Your task to perform on an android device: add a contact Image 0: 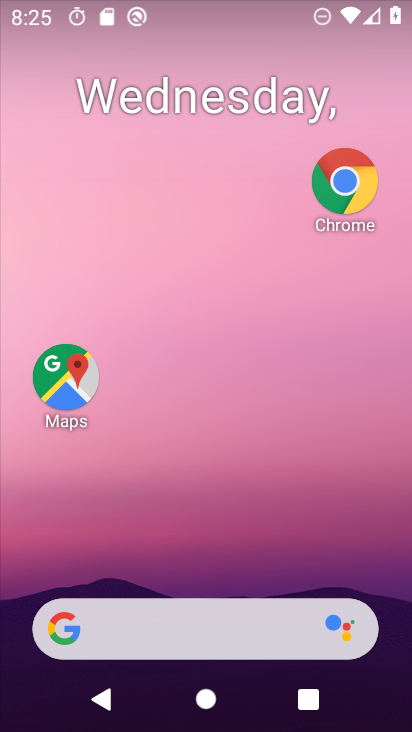
Step 0: drag from (274, 668) to (238, 177)
Your task to perform on an android device: add a contact Image 1: 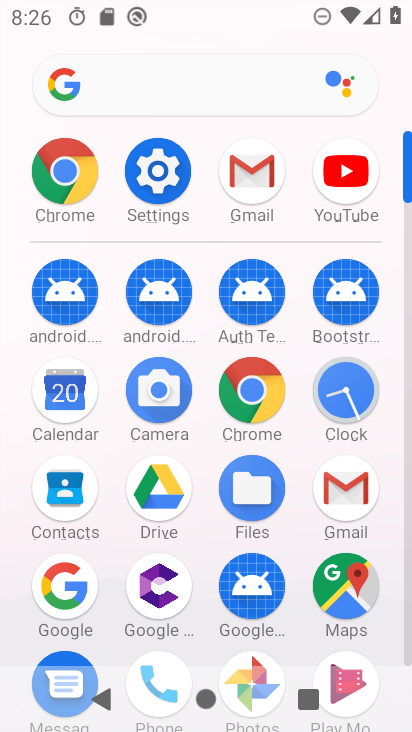
Step 1: drag from (117, 540) to (105, 418)
Your task to perform on an android device: add a contact Image 2: 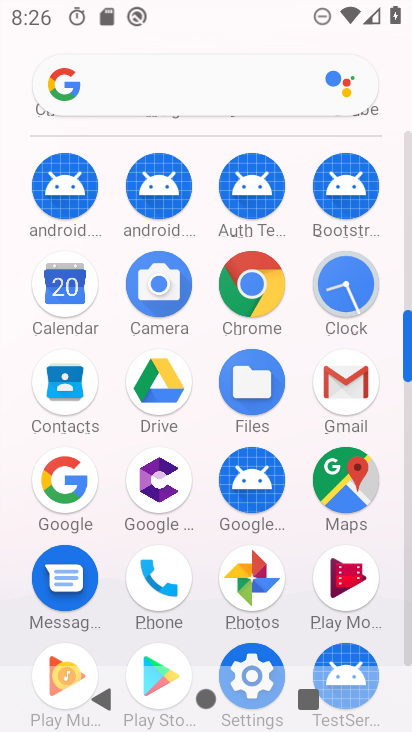
Step 2: click (162, 566)
Your task to perform on an android device: add a contact Image 3: 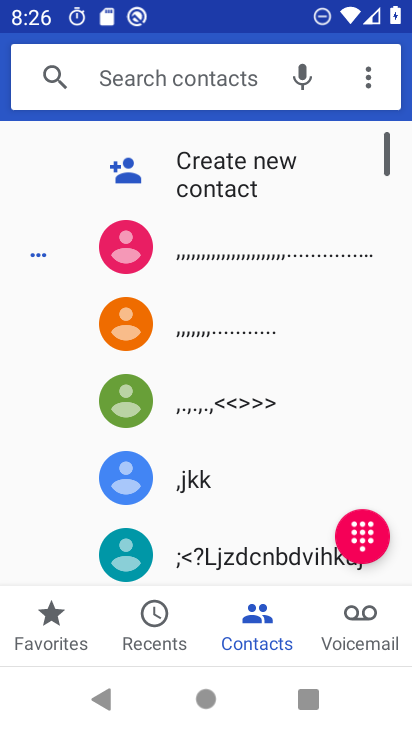
Step 3: click (192, 165)
Your task to perform on an android device: add a contact Image 4: 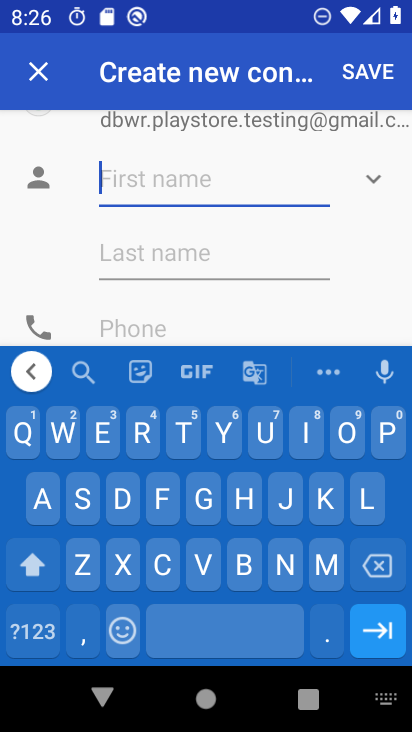
Step 4: click (385, 445)
Your task to perform on an android device: add a contact Image 5: 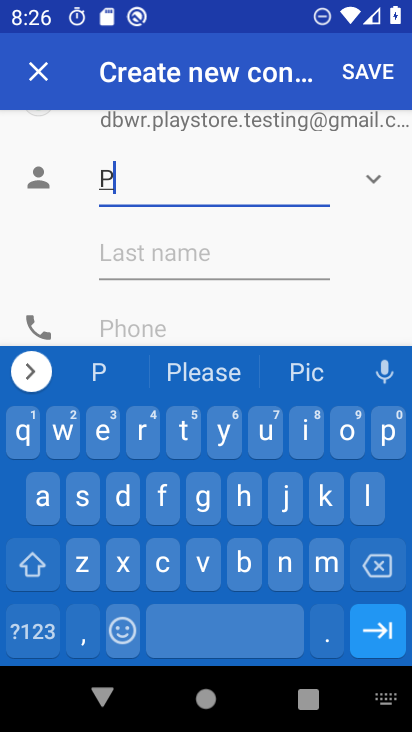
Step 5: click (141, 437)
Your task to perform on an android device: add a contact Image 6: 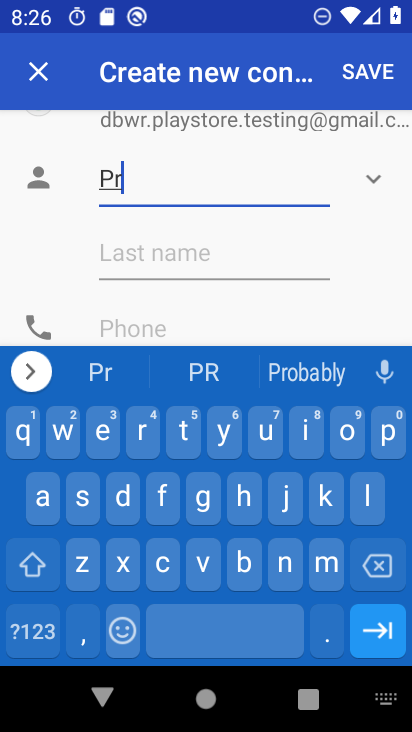
Step 6: click (306, 435)
Your task to perform on an android device: add a contact Image 7: 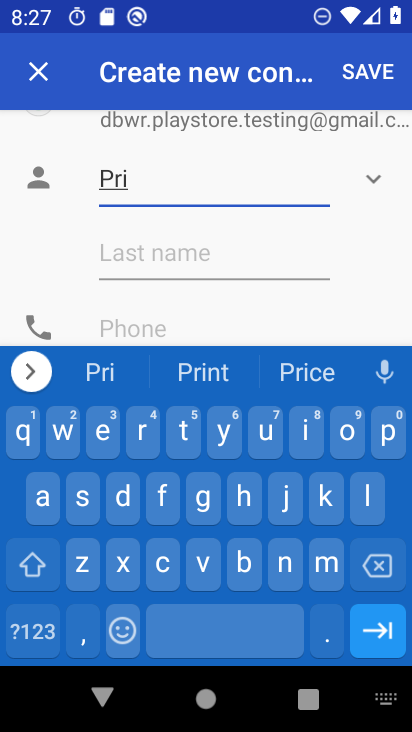
Step 7: click (283, 561)
Your task to perform on an android device: add a contact Image 8: 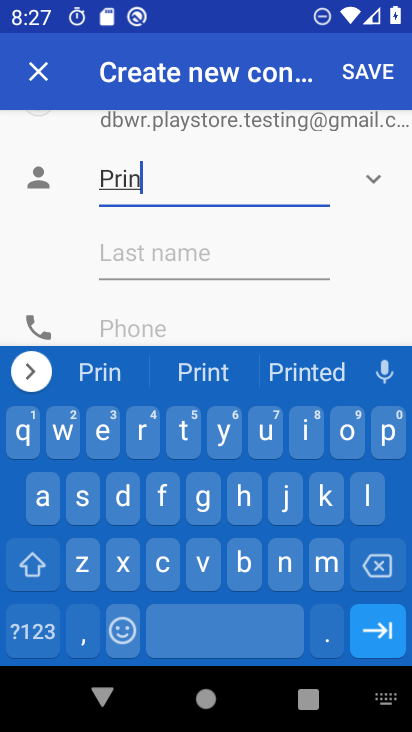
Step 8: click (162, 566)
Your task to perform on an android device: add a contact Image 9: 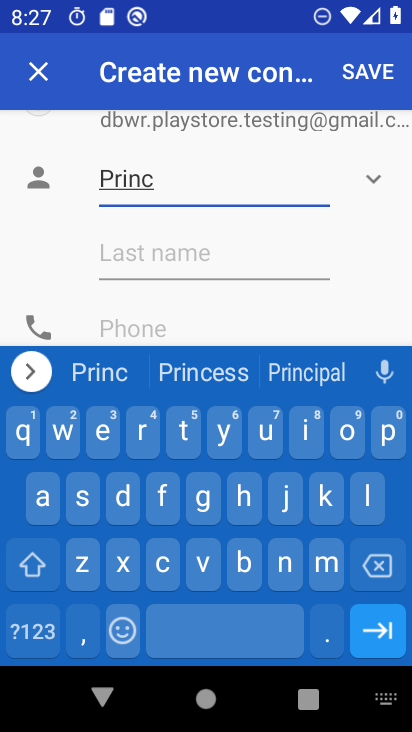
Step 9: click (101, 443)
Your task to perform on an android device: add a contact Image 10: 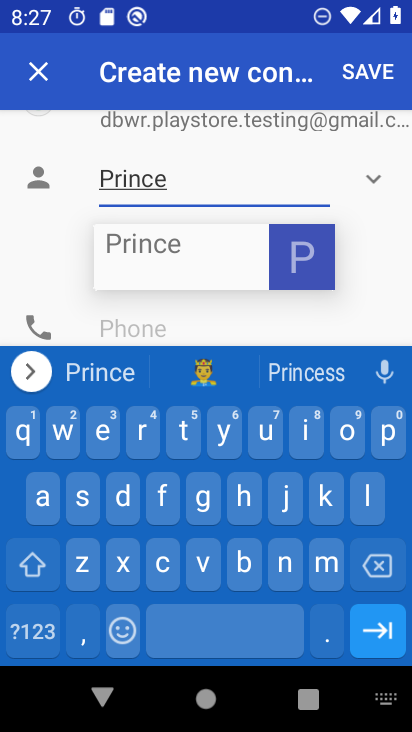
Step 10: click (204, 641)
Your task to perform on an android device: add a contact Image 11: 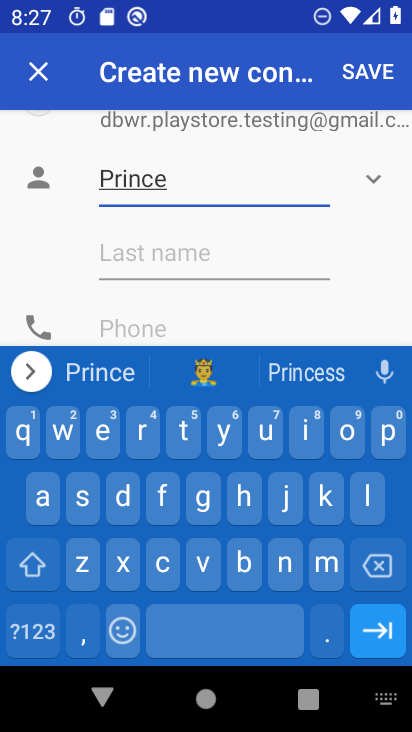
Step 11: click (147, 440)
Your task to perform on an android device: add a contact Image 12: 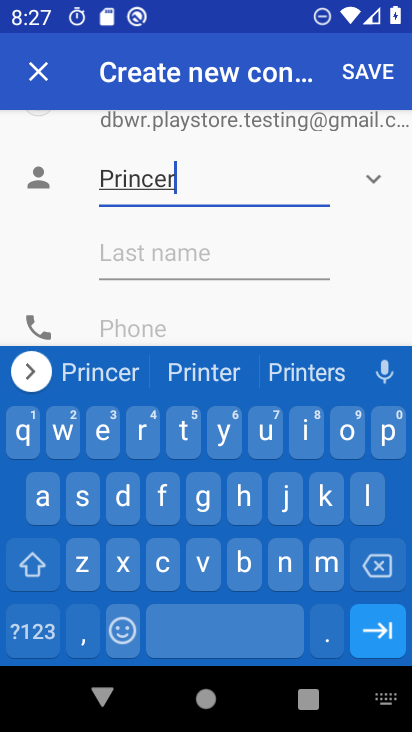
Step 12: click (144, 329)
Your task to perform on an android device: add a contact Image 13: 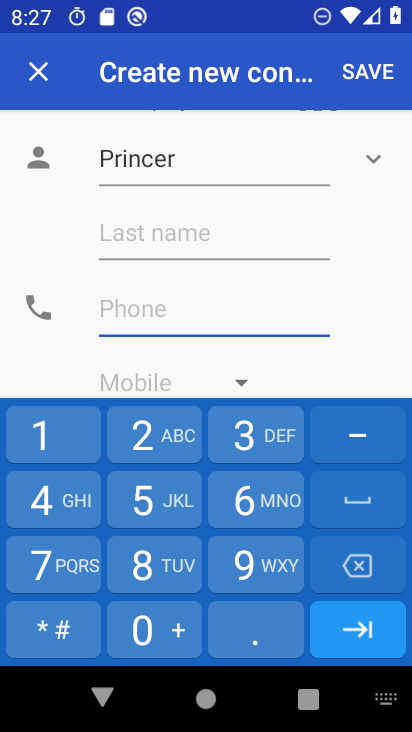
Step 13: click (131, 321)
Your task to perform on an android device: add a contact Image 14: 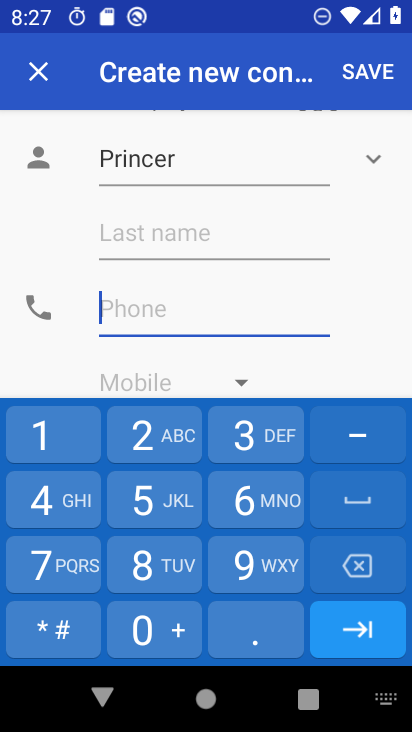
Step 14: click (241, 558)
Your task to perform on an android device: add a contact Image 15: 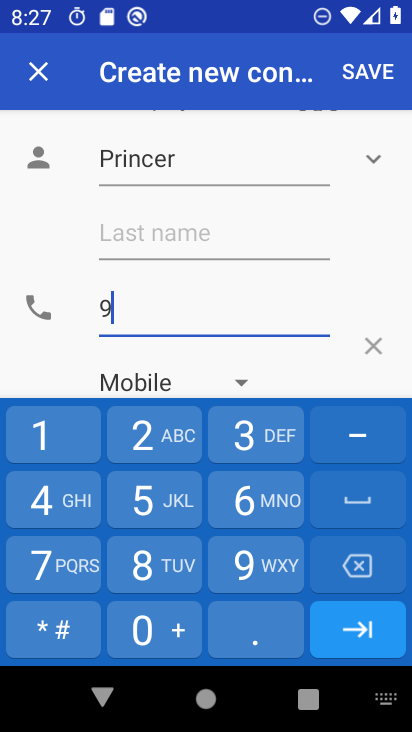
Step 15: click (254, 488)
Your task to perform on an android device: add a contact Image 16: 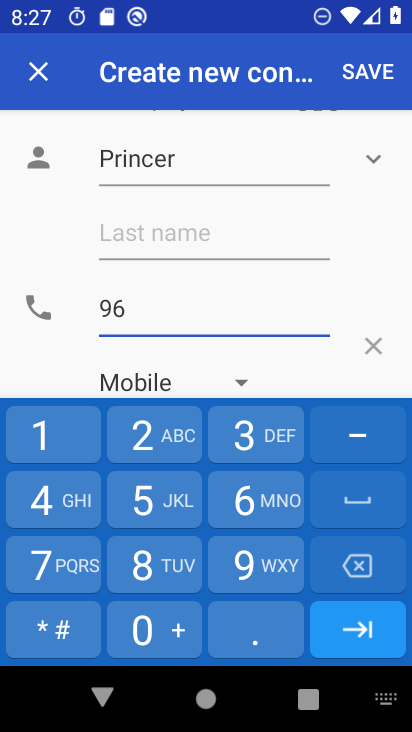
Step 16: click (161, 511)
Your task to perform on an android device: add a contact Image 17: 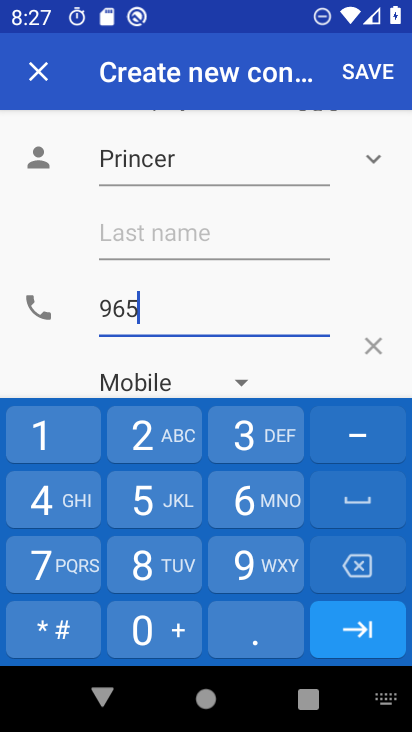
Step 17: click (231, 510)
Your task to perform on an android device: add a contact Image 18: 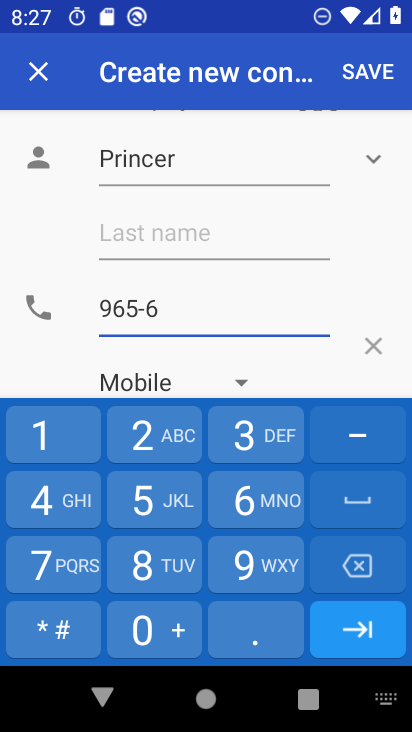
Step 18: click (261, 509)
Your task to perform on an android device: add a contact Image 19: 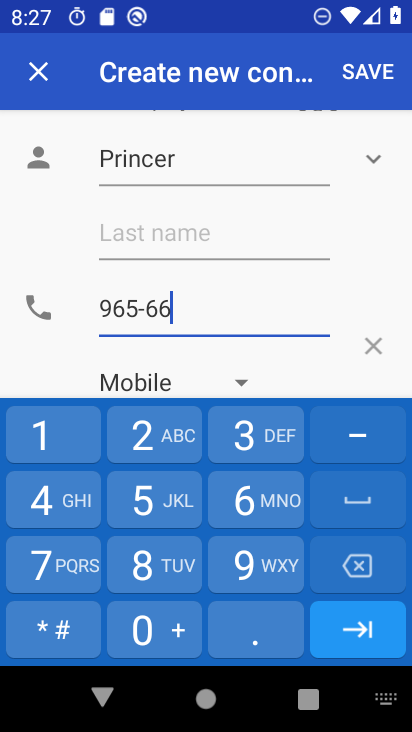
Step 19: click (71, 500)
Your task to perform on an android device: add a contact Image 20: 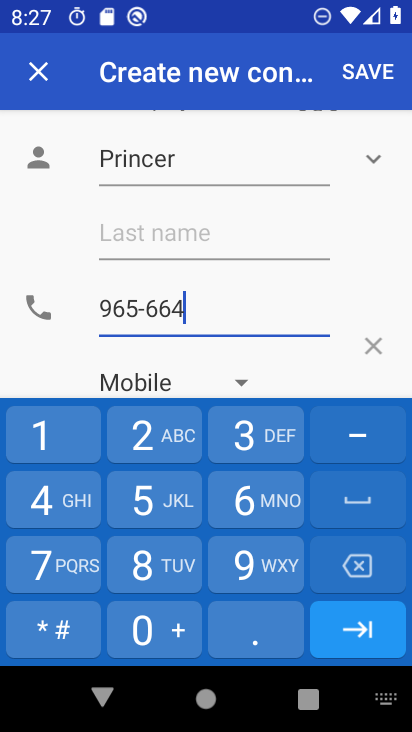
Step 20: click (127, 508)
Your task to perform on an android device: add a contact Image 21: 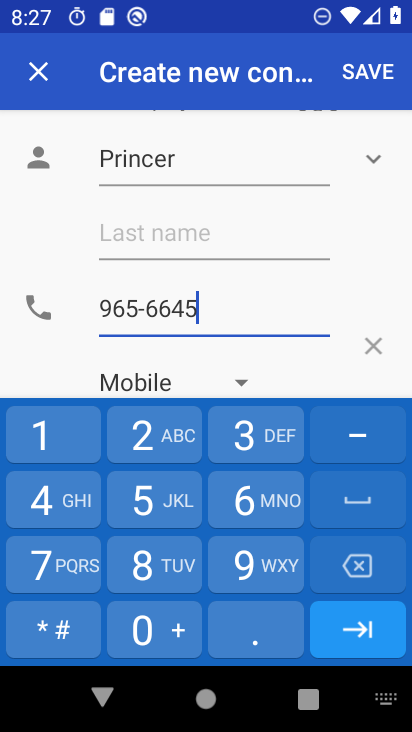
Step 21: click (150, 573)
Your task to perform on an android device: add a contact Image 22: 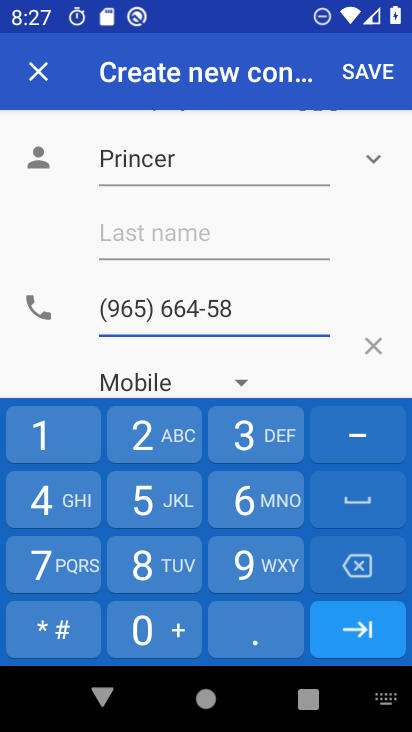
Step 22: click (140, 441)
Your task to perform on an android device: add a contact Image 23: 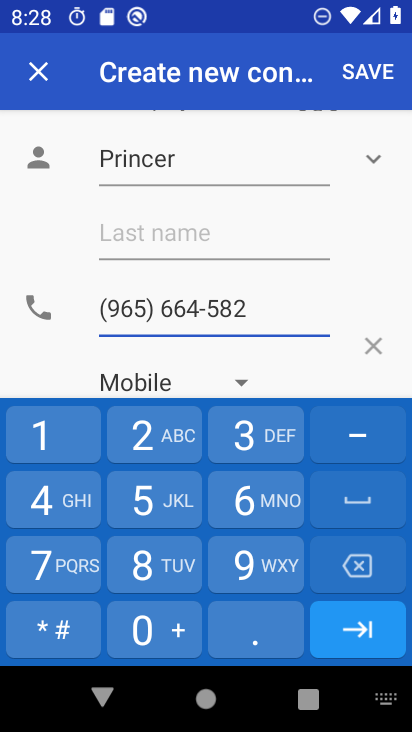
Step 23: click (185, 543)
Your task to perform on an android device: add a contact Image 24: 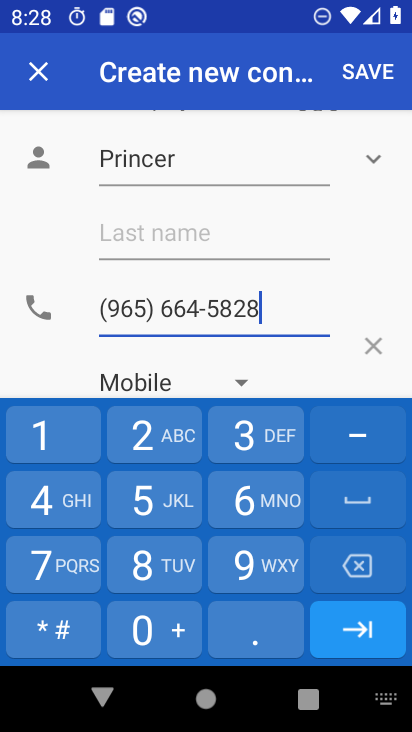
Step 24: click (347, 68)
Your task to perform on an android device: add a contact Image 25: 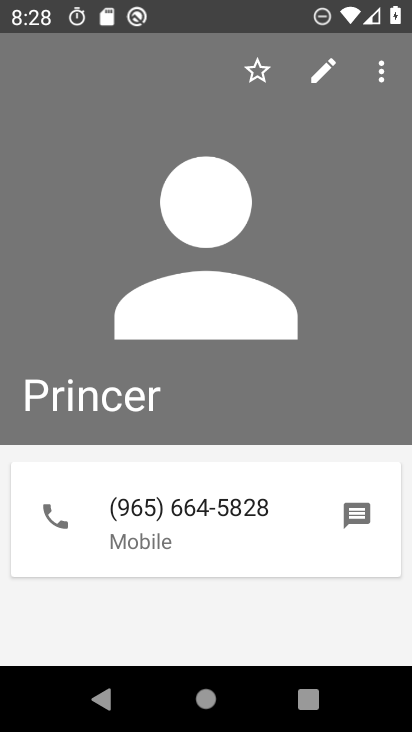
Step 25: task complete